Your task to perform on an android device: Go to Google maps Image 0: 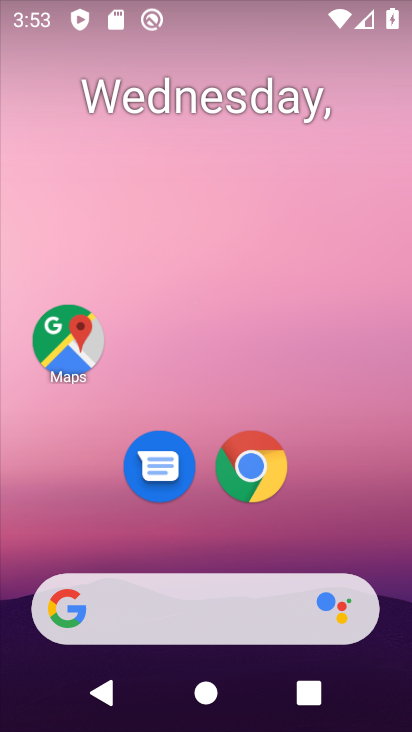
Step 0: drag from (182, 545) to (169, 25)
Your task to perform on an android device: Go to Google maps Image 1: 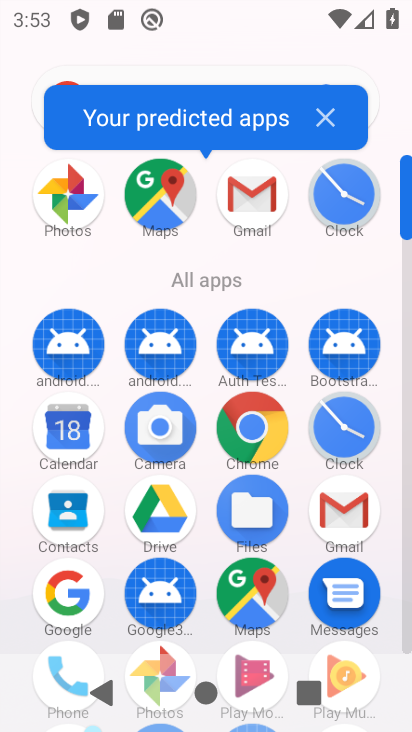
Step 1: click (150, 173)
Your task to perform on an android device: Go to Google maps Image 2: 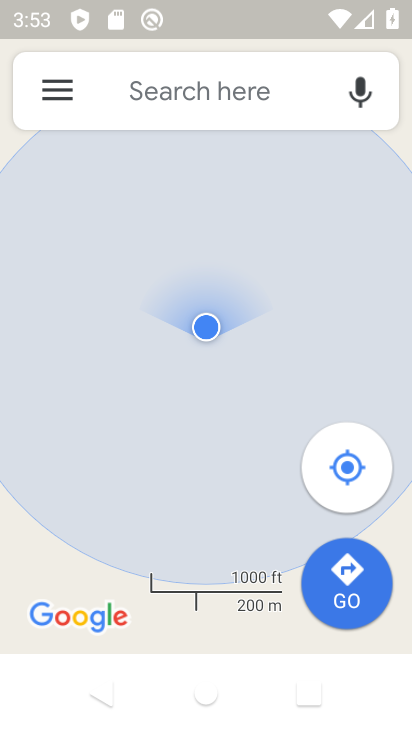
Step 2: task complete